Your task to perform on an android device: When is my next meeting? Image 0: 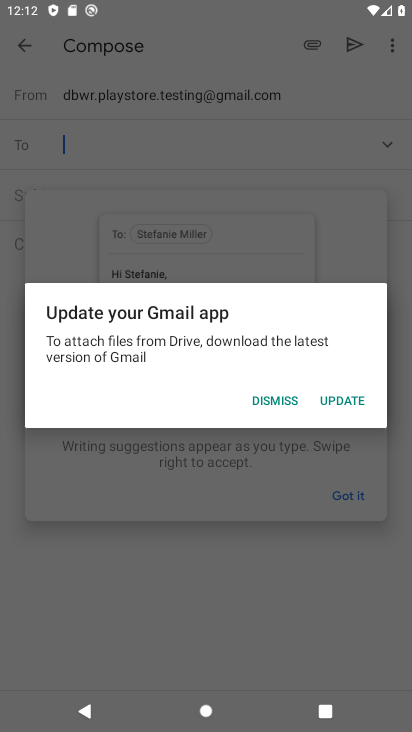
Step 0: press back button
Your task to perform on an android device: When is my next meeting? Image 1: 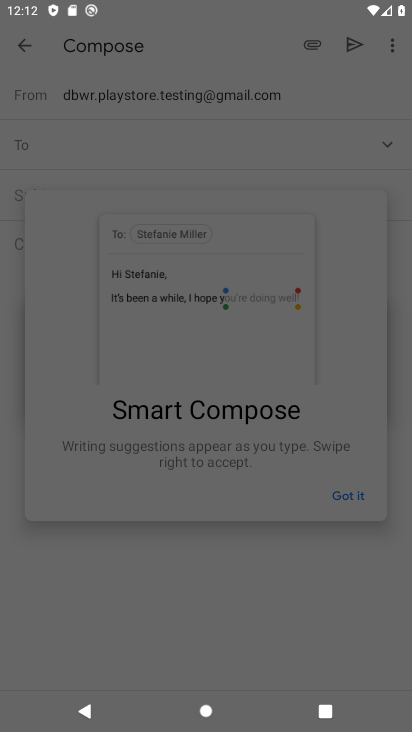
Step 1: click (270, 397)
Your task to perform on an android device: When is my next meeting? Image 2: 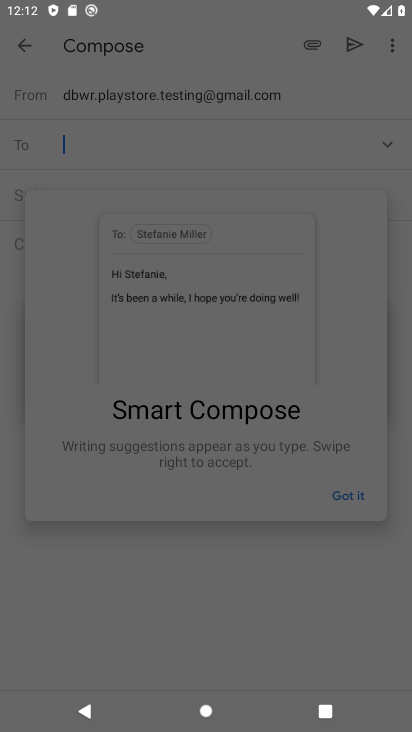
Step 2: press back button
Your task to perform on an android device: When is my next meeting? Image 3: 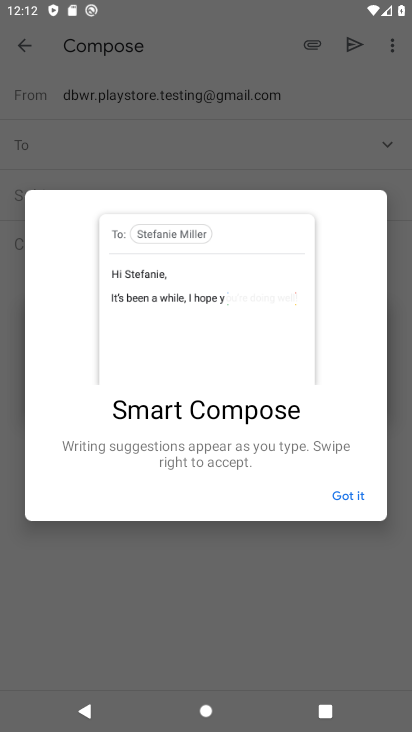
Step 3: click (348, 487)
Your task to perform on an android device: When is my next meeting? Image 4: 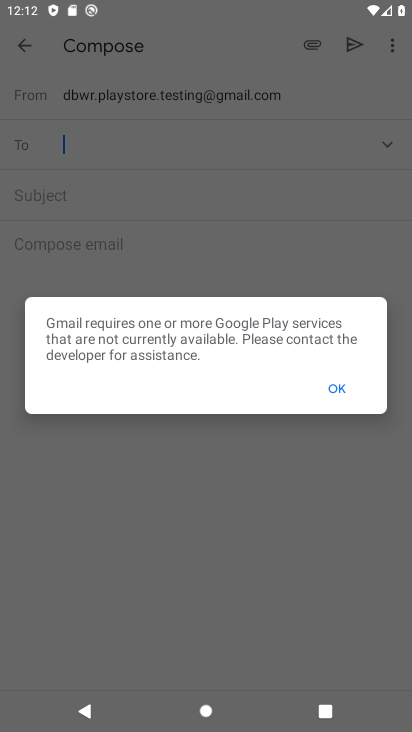
Step 4: click (334, 387)
Your task to perform on an android device: When is my next meeting? Image 5: 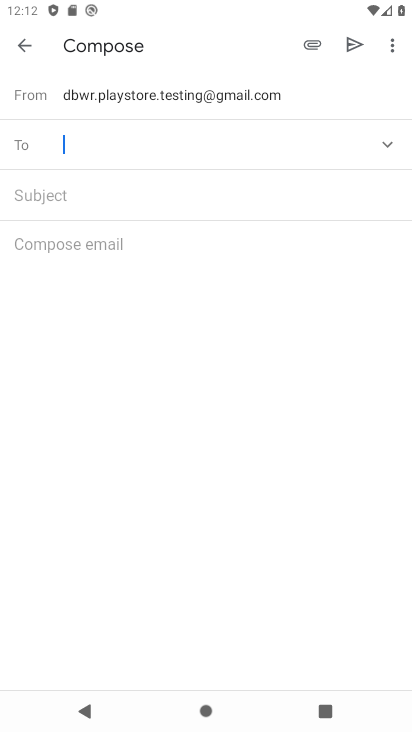
Step 5: press home button
Your task to perform on an android device: When is my next meeting? Image 6: 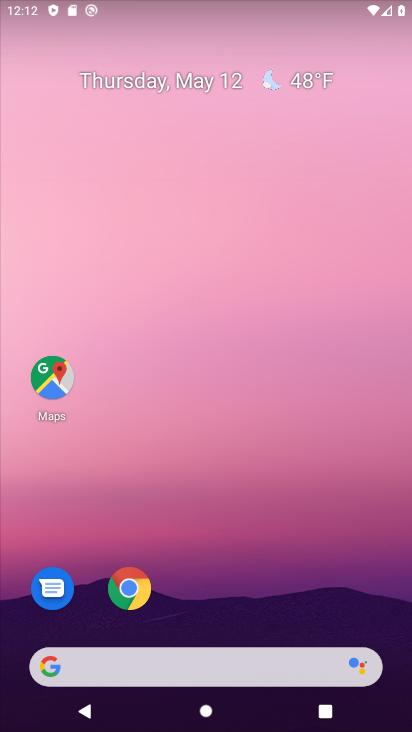
Step 6: drag from (338, 563) to (116, 0)
Your task to perform on an android device: When is my next meeting? Image 7: 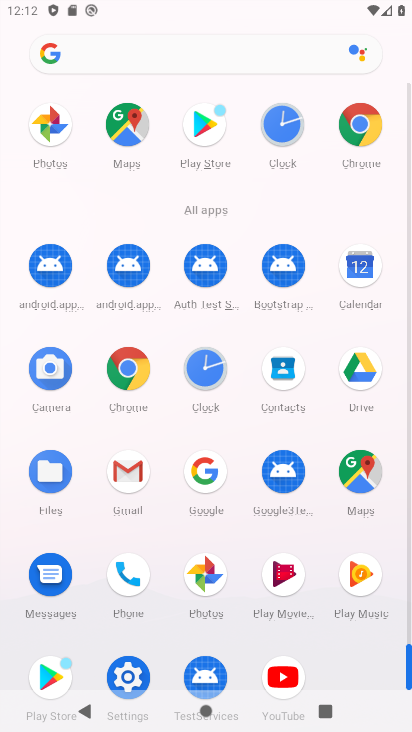
Step 7: click (360, 272)
Your task to perform on an android device: When is my next meeting? Image 8: 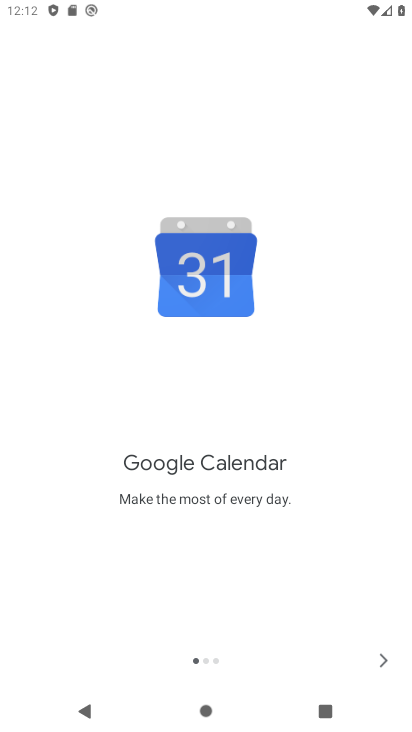
Step 8: click (378, 654)
Your task to perform on an android device: When is my next meeting? Image 9: 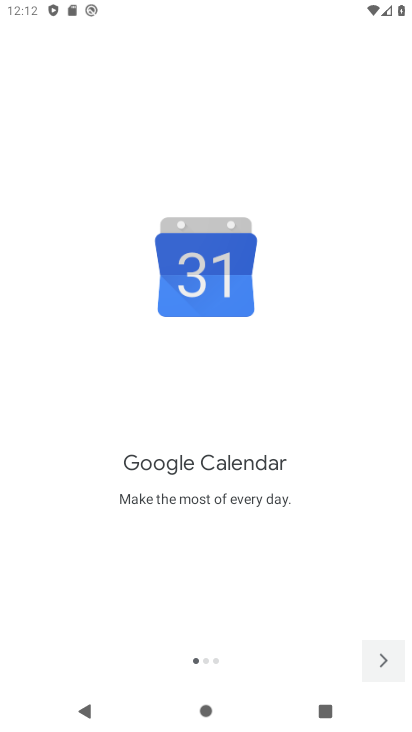
Step 9: click (378, 654)
Your task to perform on an android device: When is my next meeting? Image 10: 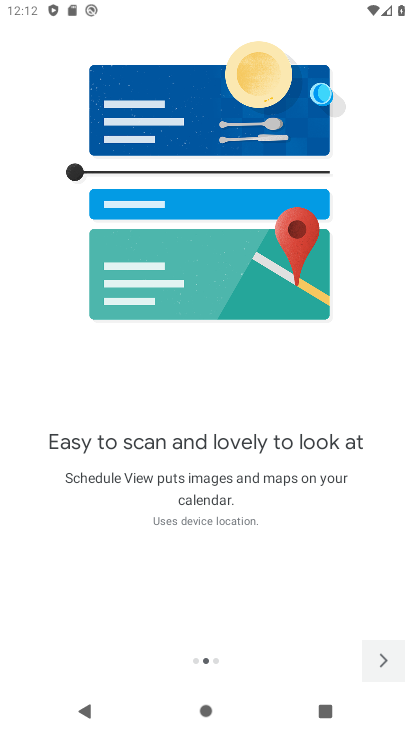
Step 10: click (378, 653)
Your task to perform on an android device: When is my next meeting? Image 11: 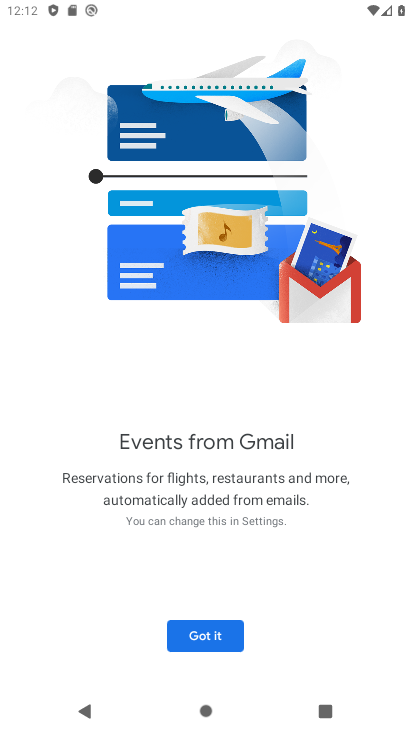
Step 11: click (378, 648)
Your task to perform on an android device: When is my next meeting? Image 12: 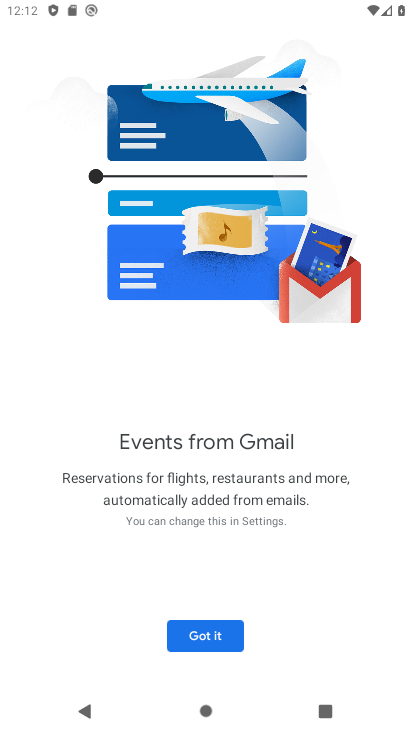
Step 12: click (378, 647)
Your task to perform on an android device: When is my next meeting? Image 13: 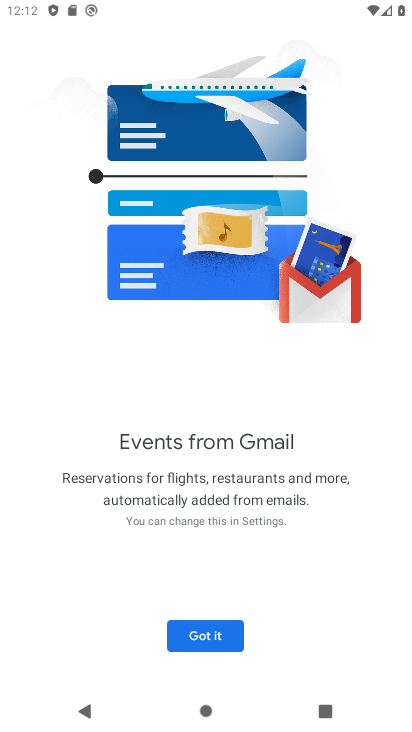
Step 13: click (368, 629)
Your task to perform on an android device: When is my next meeting? Image 14: 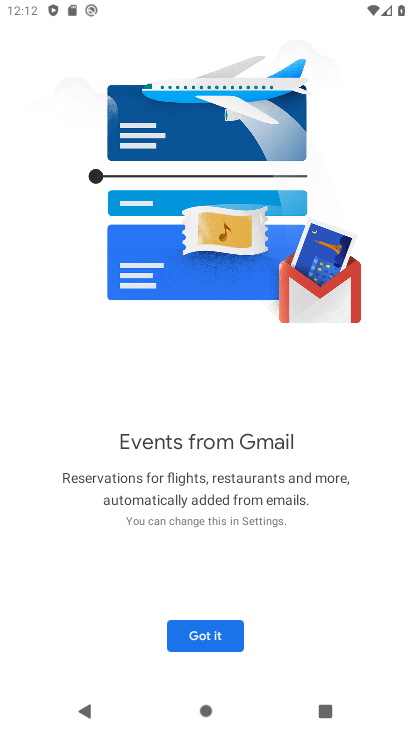
Step 14: click (363, 613)
Your task to perform on an android device: When is my next meeting? Image 15: 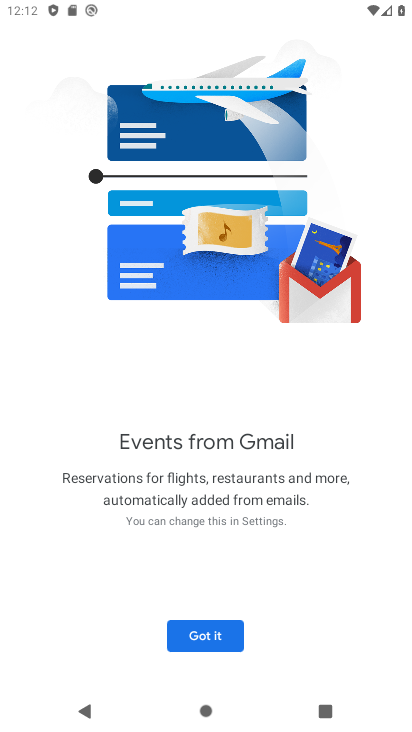
Step 15: click (218, 627)
Your task to perform on an android device: When is my next meeting? Image 16: 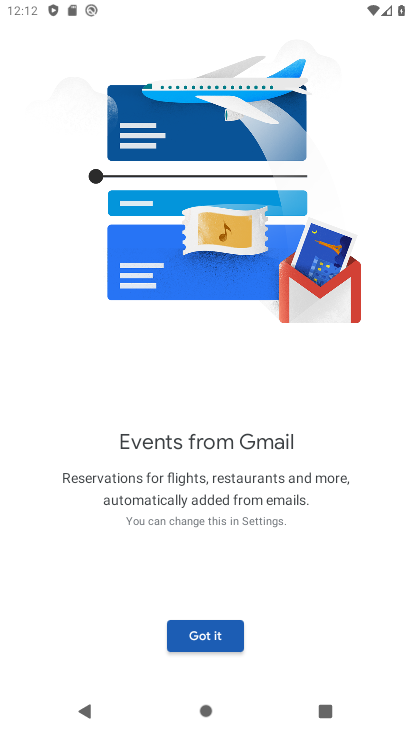
Step 16: click (210, 627)
Your task to perform on an android device: When is my next meeting? Image 17: 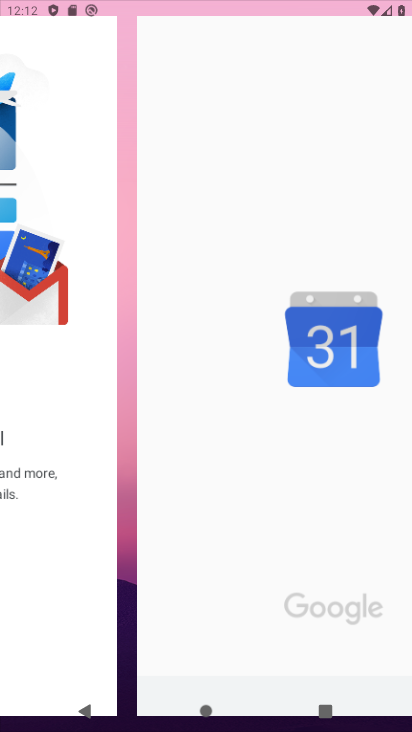
Step 17: click (210, 627)
Your task to perform on an android device: When is my next meeting? Image 18: 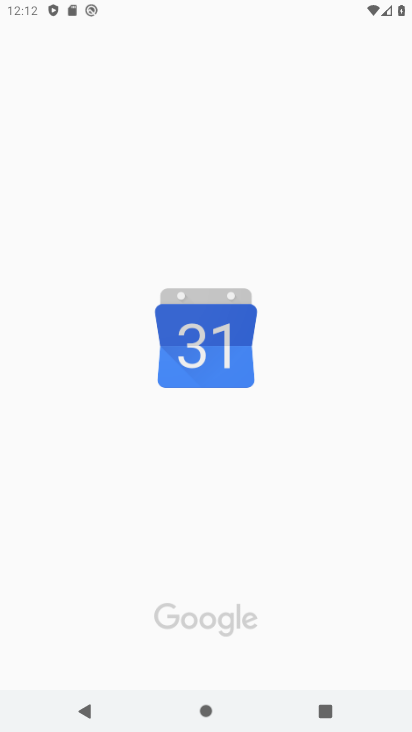
Step 18: click (211, 611)
Your task to perform on an android device: When is my next meeting? Image 19: 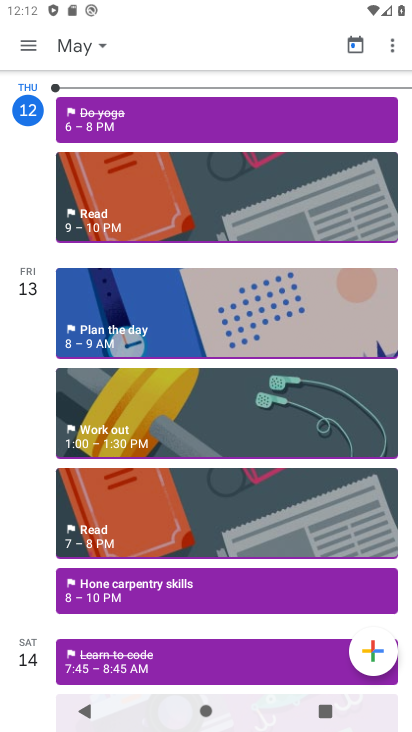
Step 19: task complete